Your task to perform on an android device: Open maps Image 0: 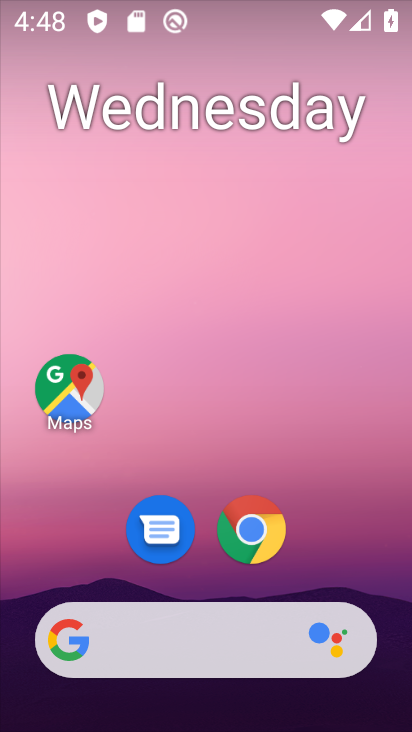
Step 0: click (59, 396)
Your task to perform on an android device: Open maps Image 1: 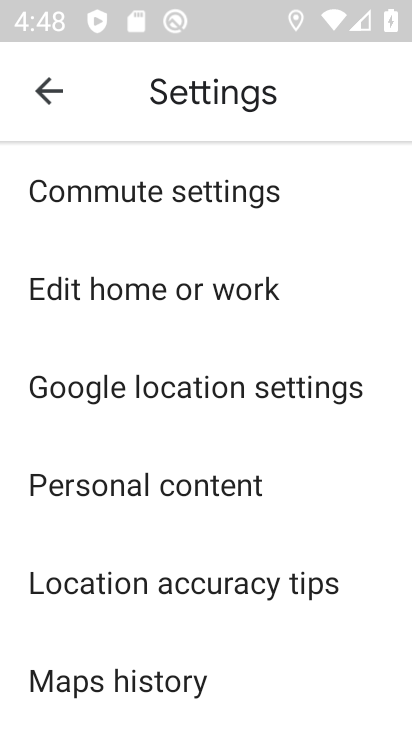
Step 1: click (37, 94)
Your task to perform on an android device: Open maps Image 2: 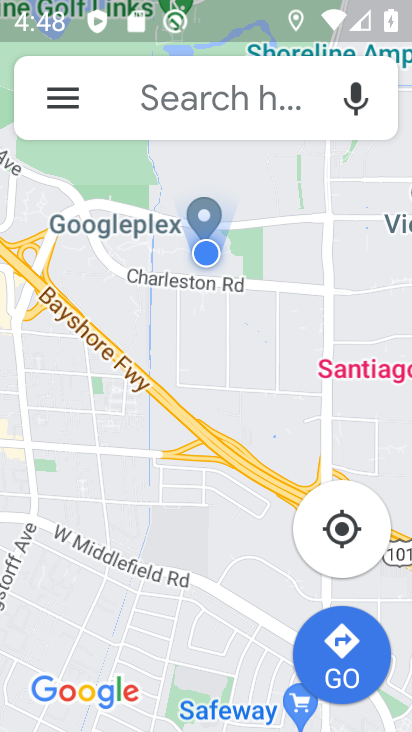
Step 2: task complete